Your task to perform on an android device: Turn on the flashlight Image 0: 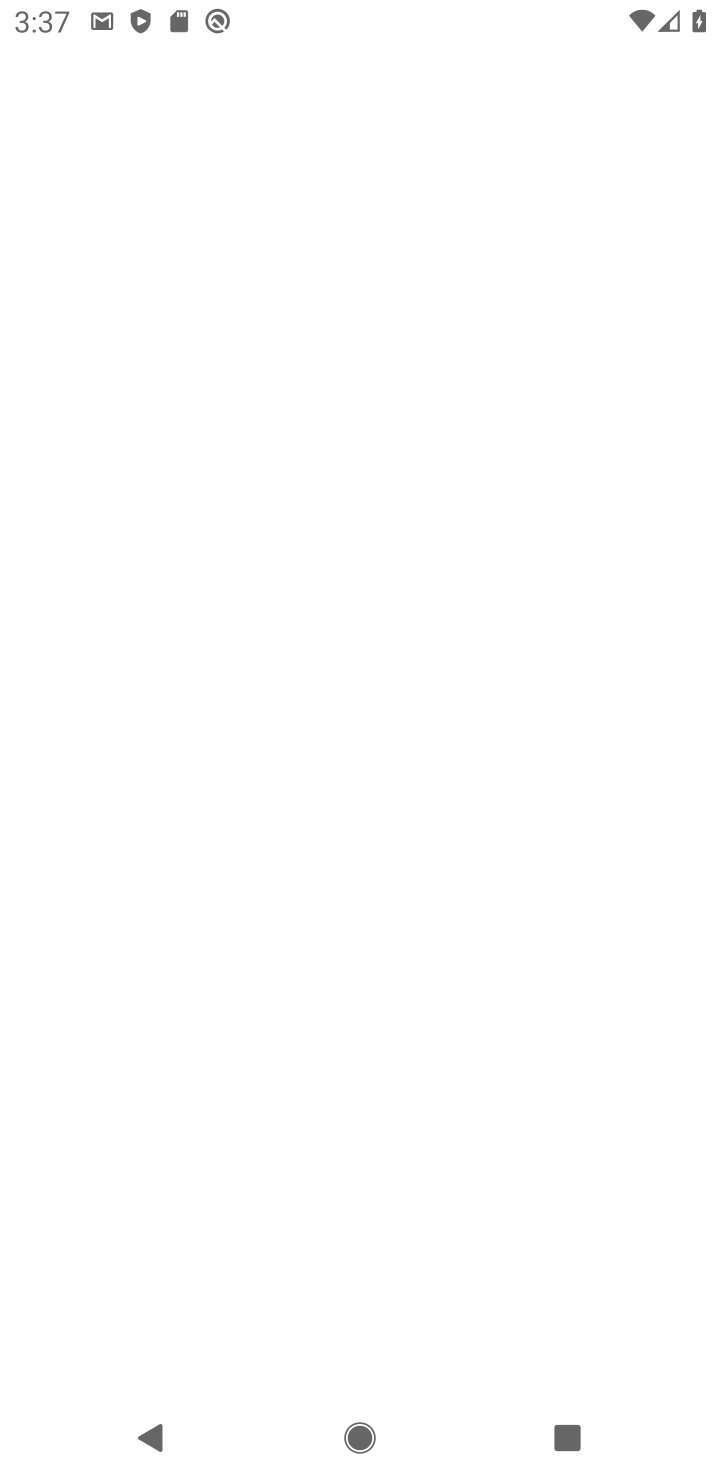
Step 0: press home button
Your task to perform on an android device: Turn on the flashlight Image 1: 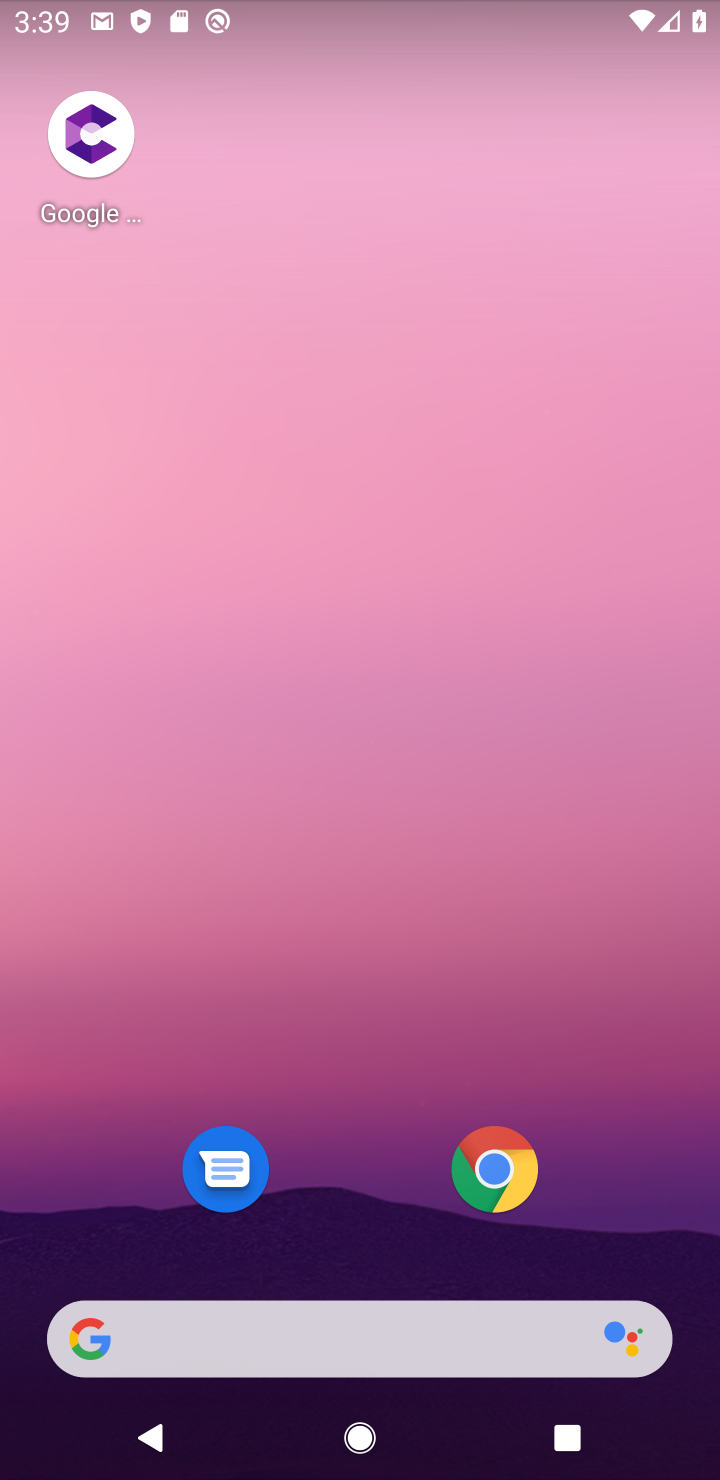
Step 1: click (376, 198)
Your task to perform on an android device: Turn on the flashlight Image 2: 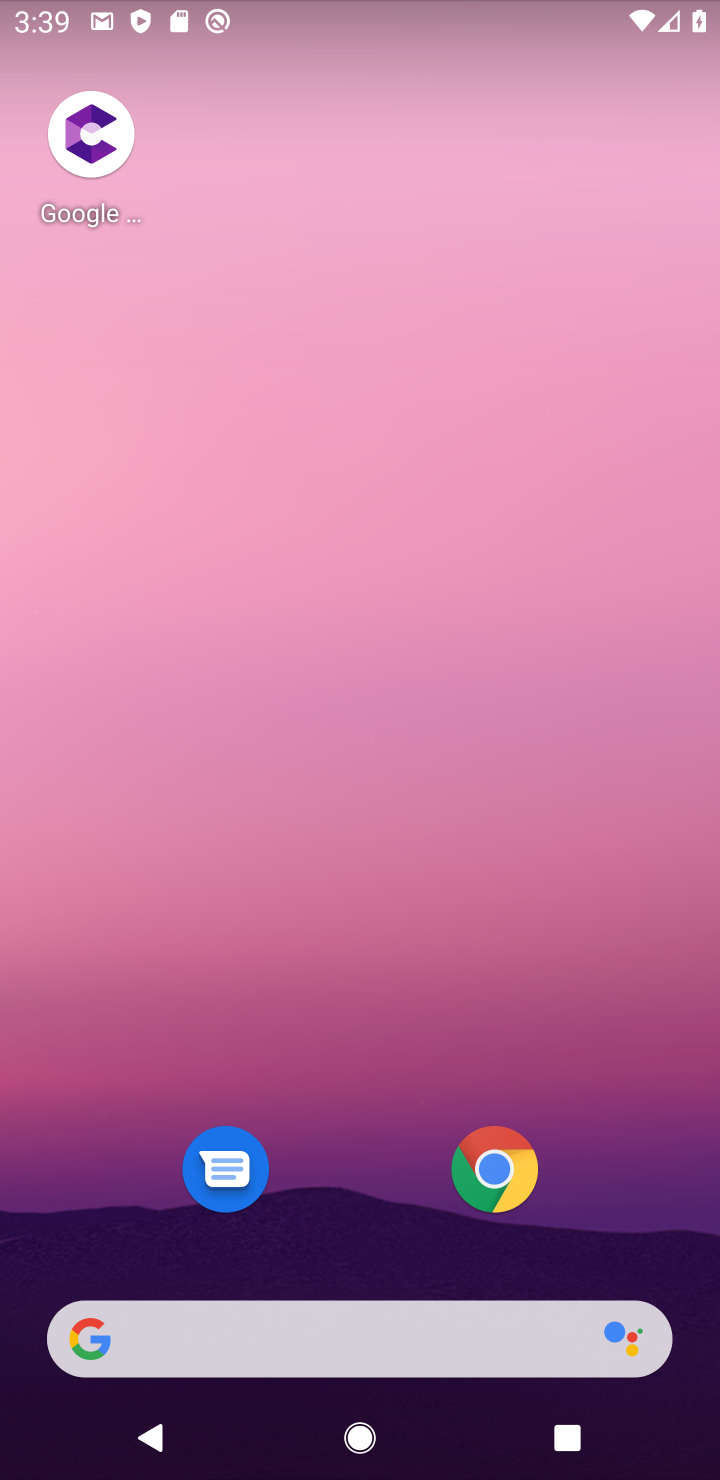
Step 2: drag from (331, 1122) to (428, 183)
Your task to perform on an android device: Turn on the flashlight Image 3: 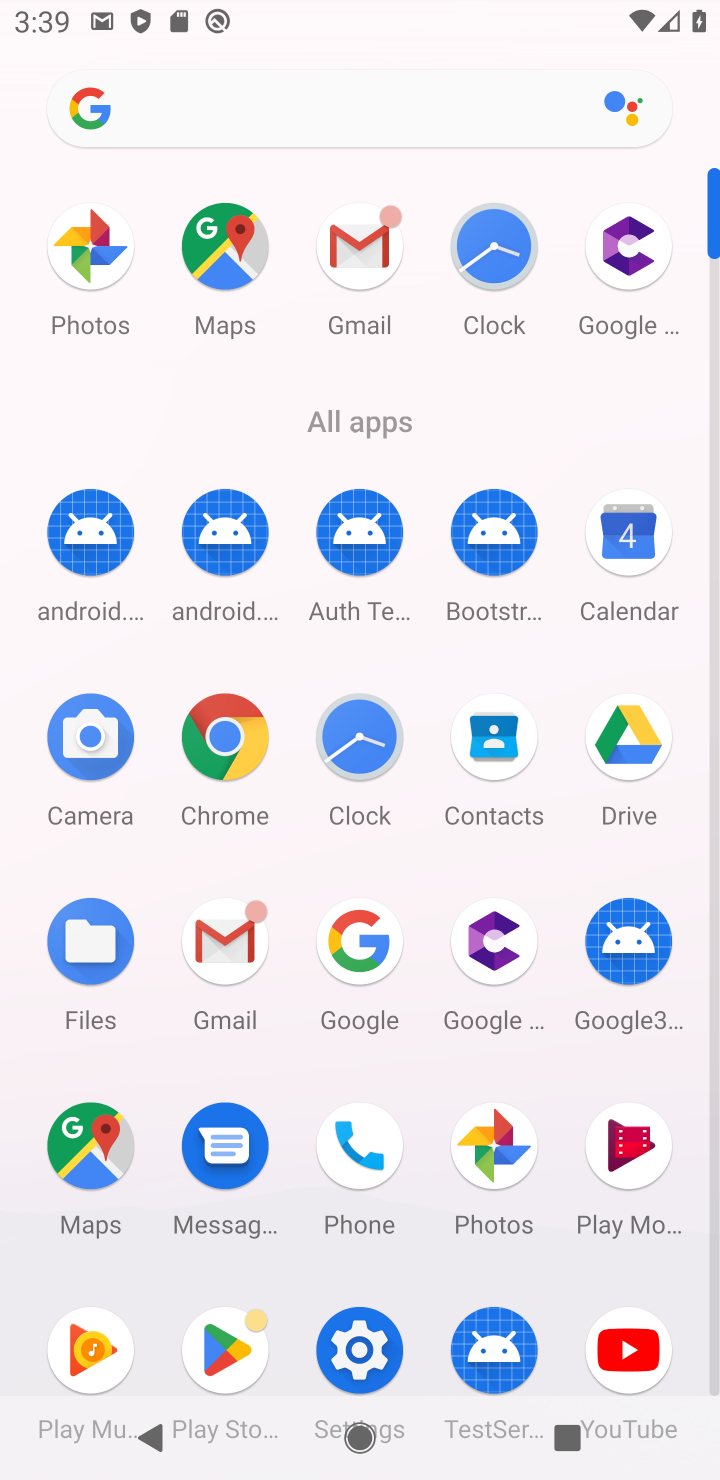
Step 3: click (374, 1348)
Your task to perform on an android device: Turn on the flashlight Image 4: 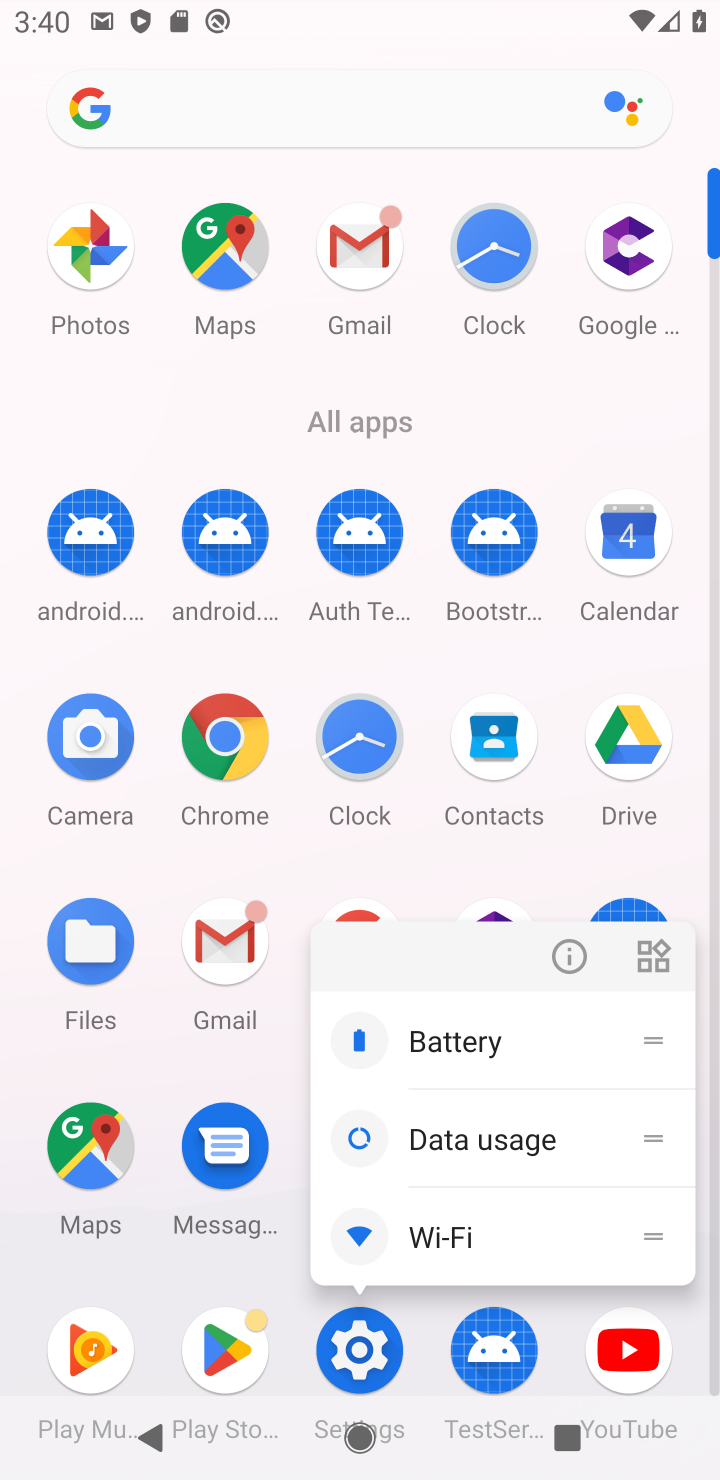
Step 4: click (366, 1350)
Your task to perform on an android device: Turn on the flashlight Image 5: 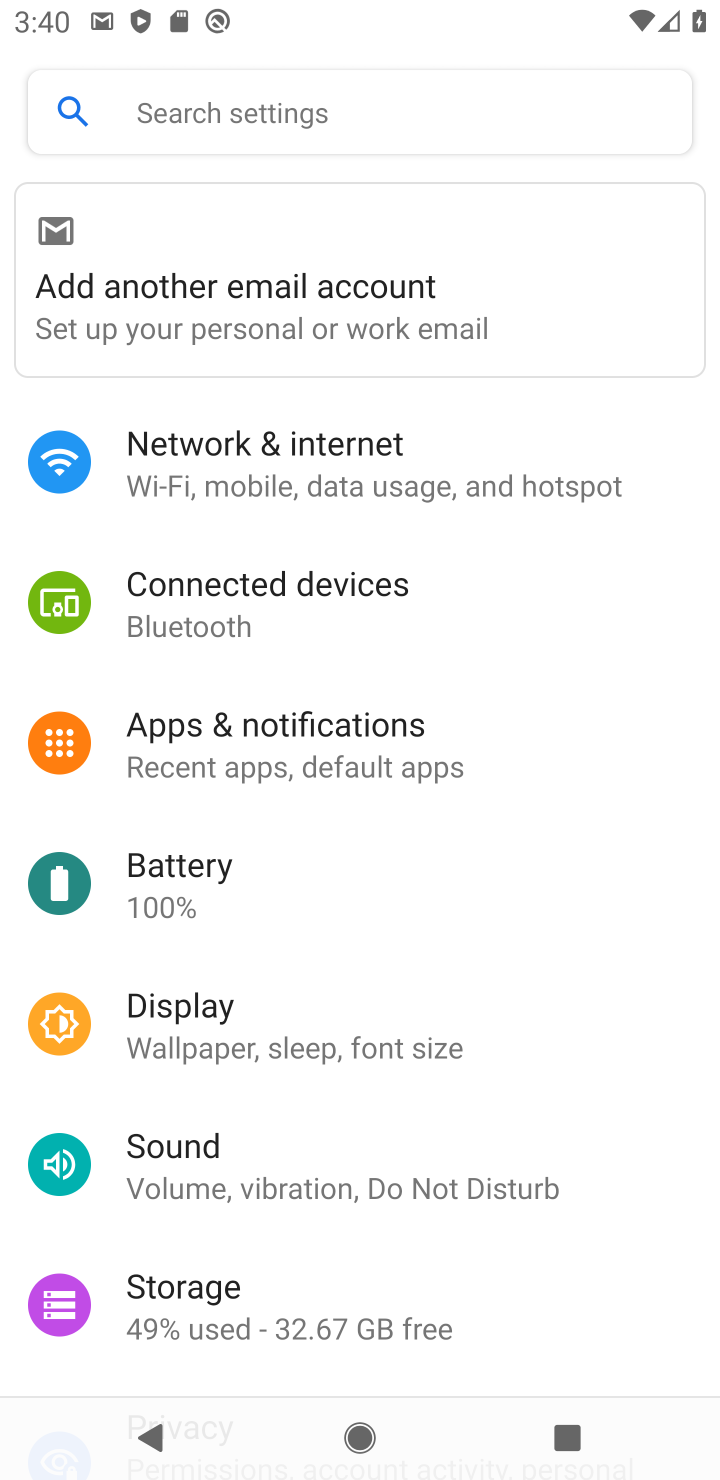
Step 5: click (427, 120)
Your task to perform on an android device: Turn on the flashlight Image 6: 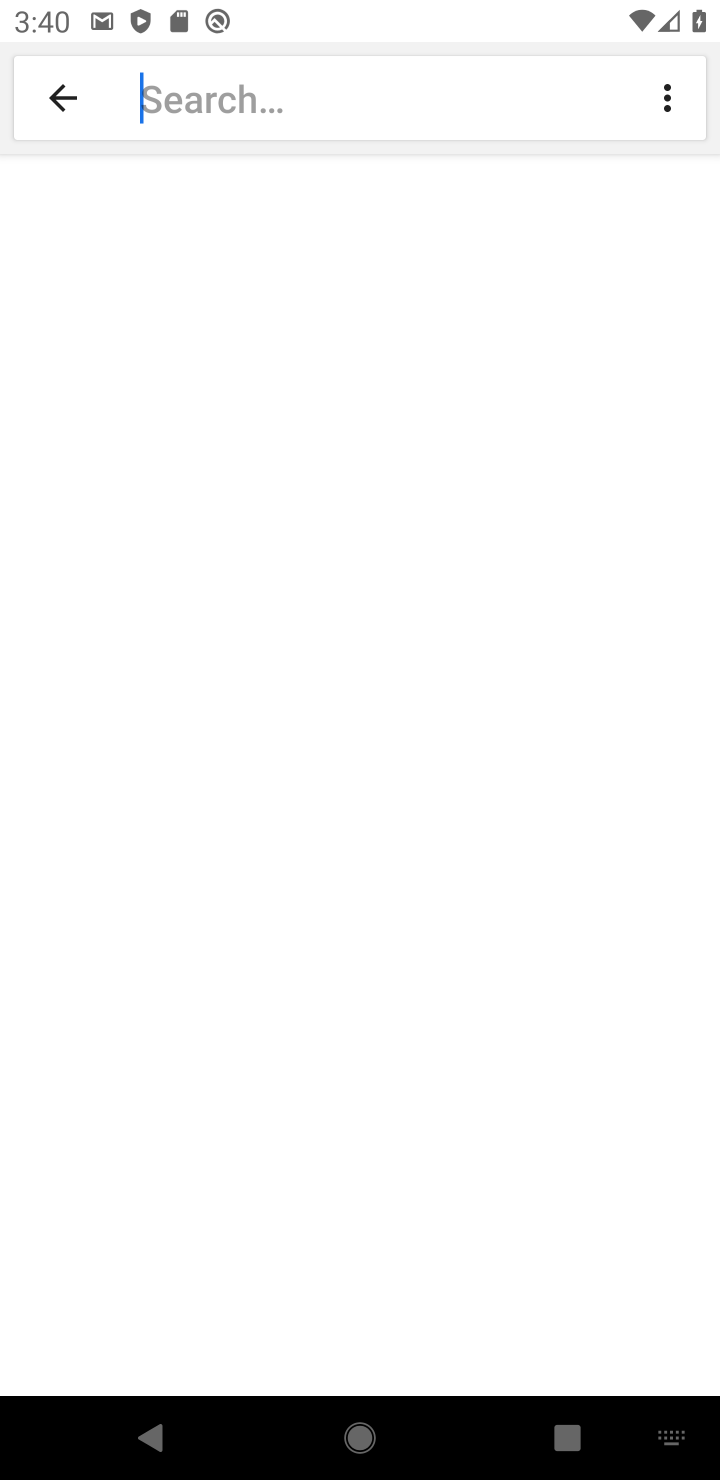
Step 6: type "flashlight"
Your task to perform on an android device: Turn on the flashlight Image 7: 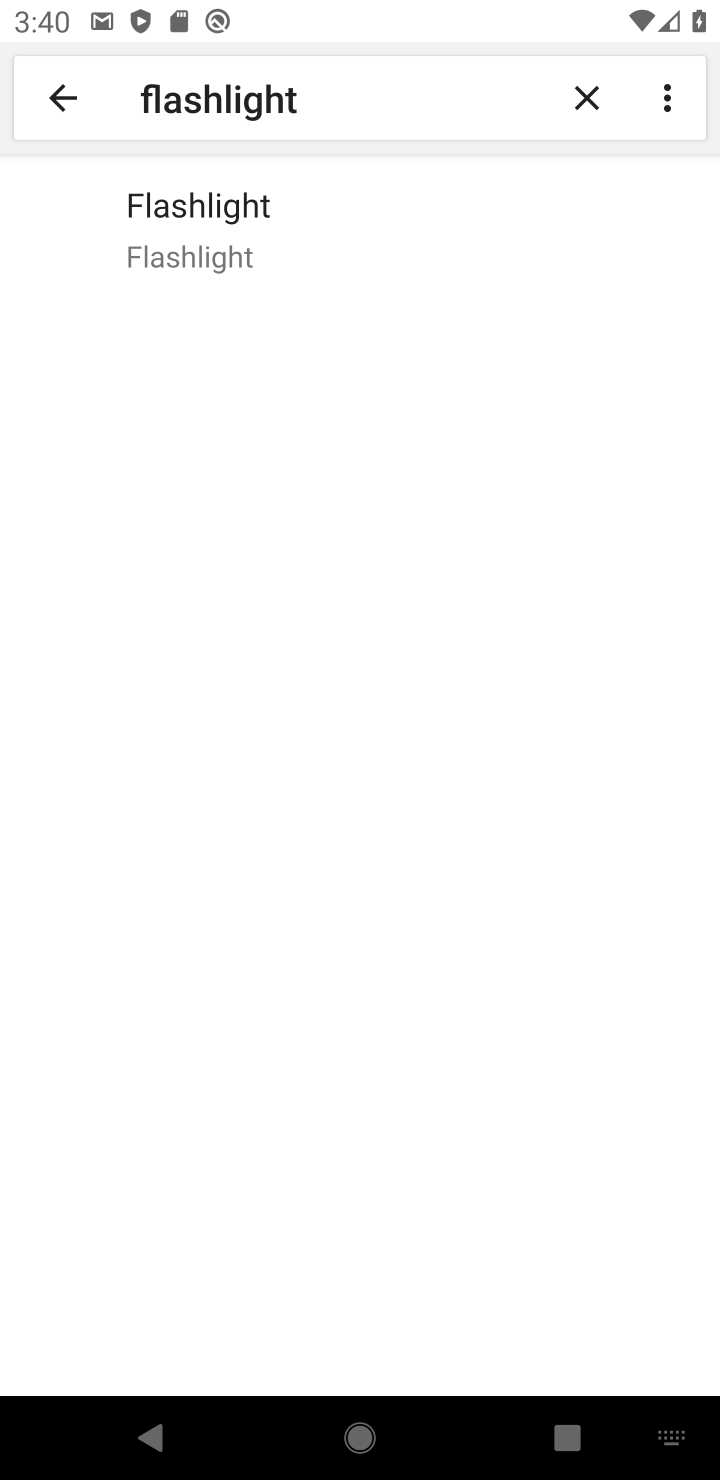
Step 7: click (217, 156)
Your task to perform on an android device: Turn on the flashlight Image 8: 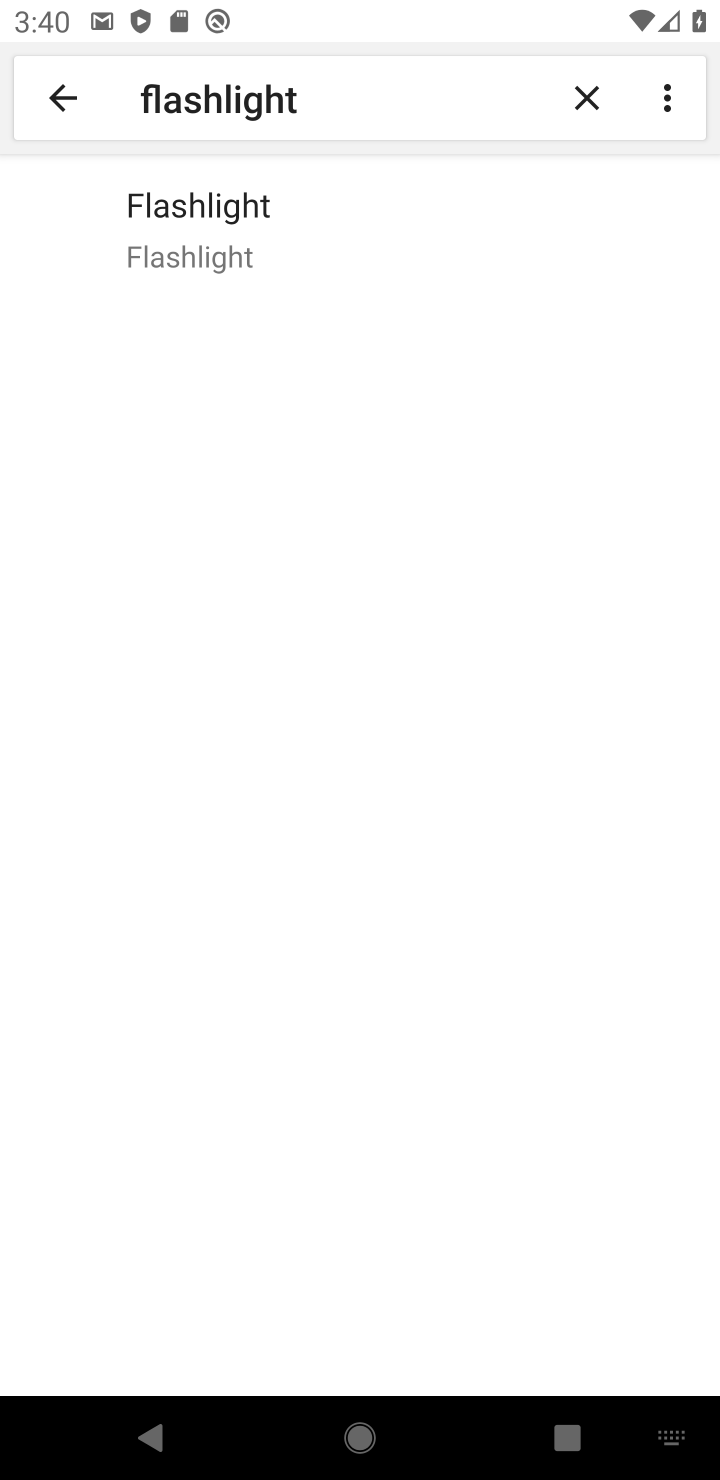
Step 8: click (231, 209)
Your task to perform on an android device: Turn on the flashlight Image 9: 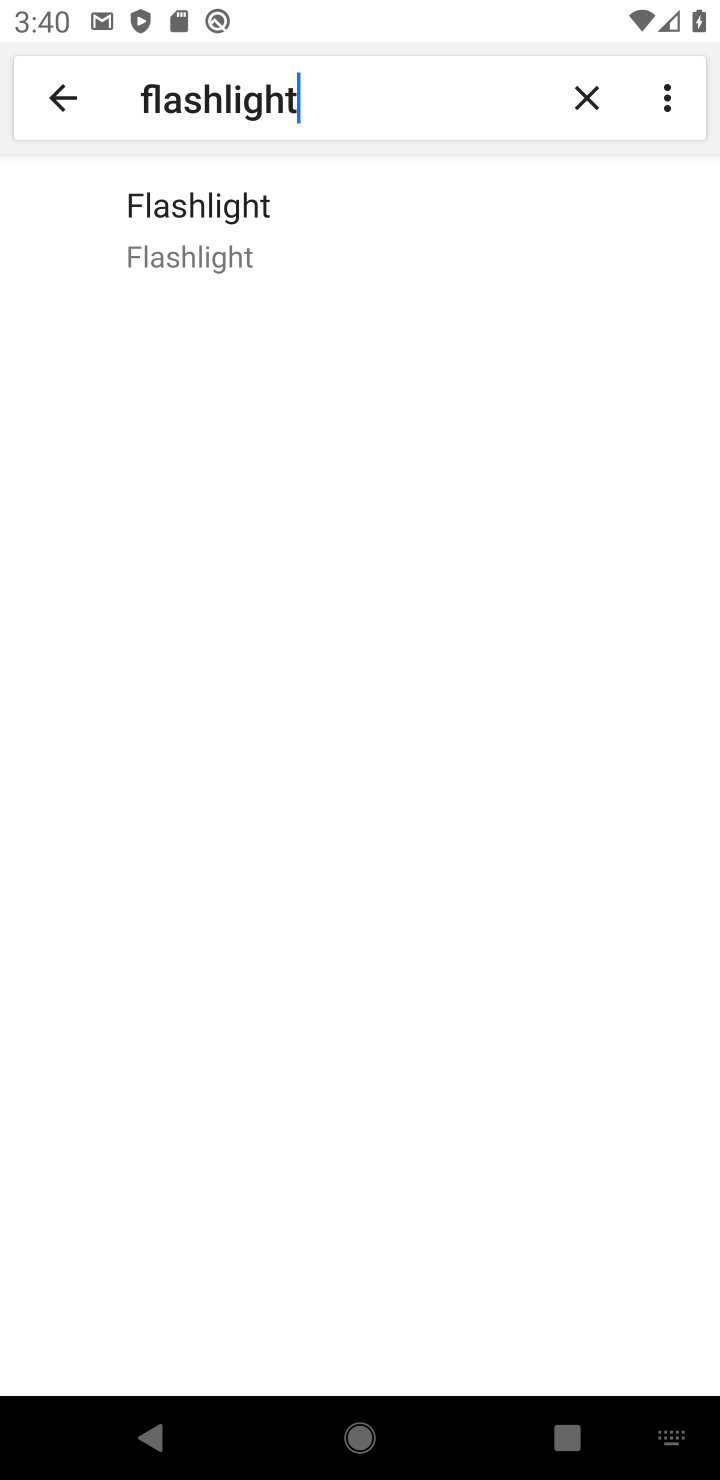
Step 9: click (231, 227)
Your task to perform on an android device: Turn on the flashlight Image 10: 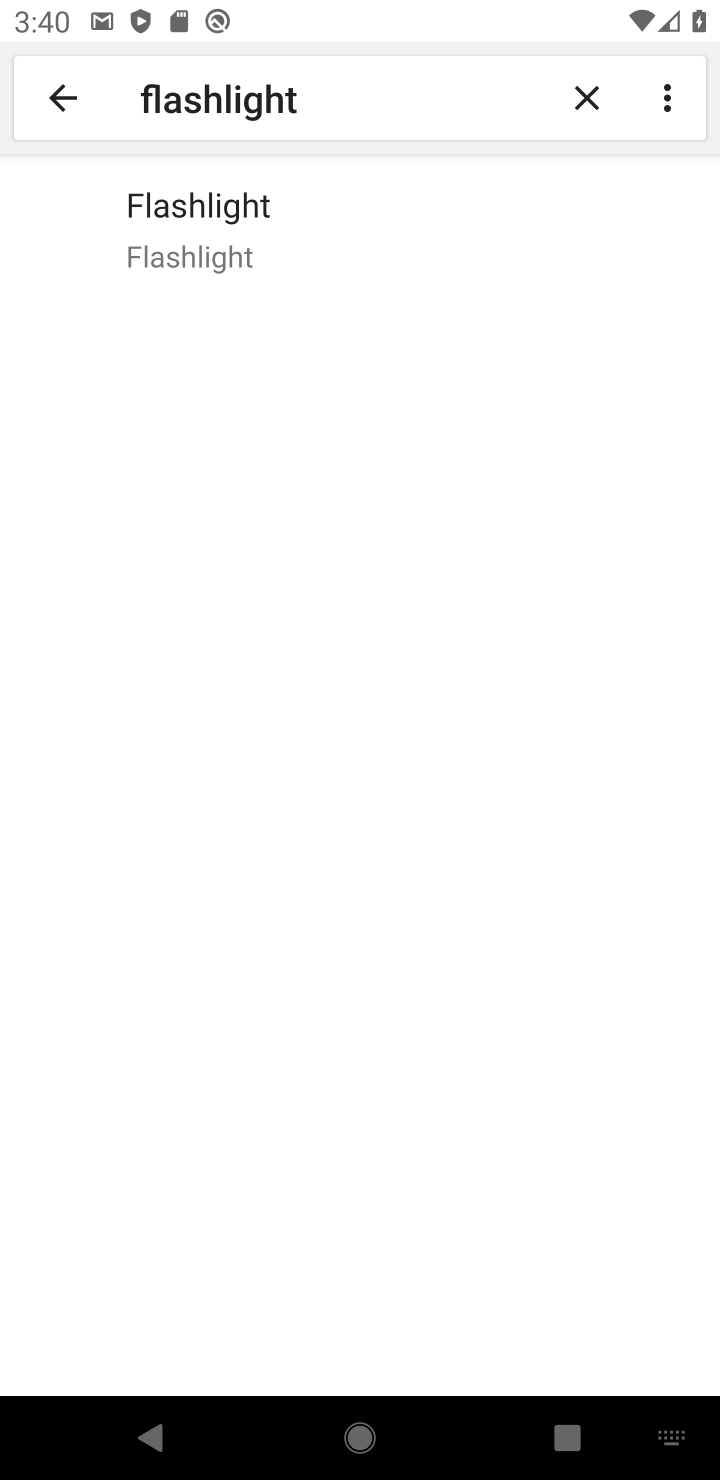
Step 10: task complete